Your task to perform on an android device: Open the web browser Image 0: 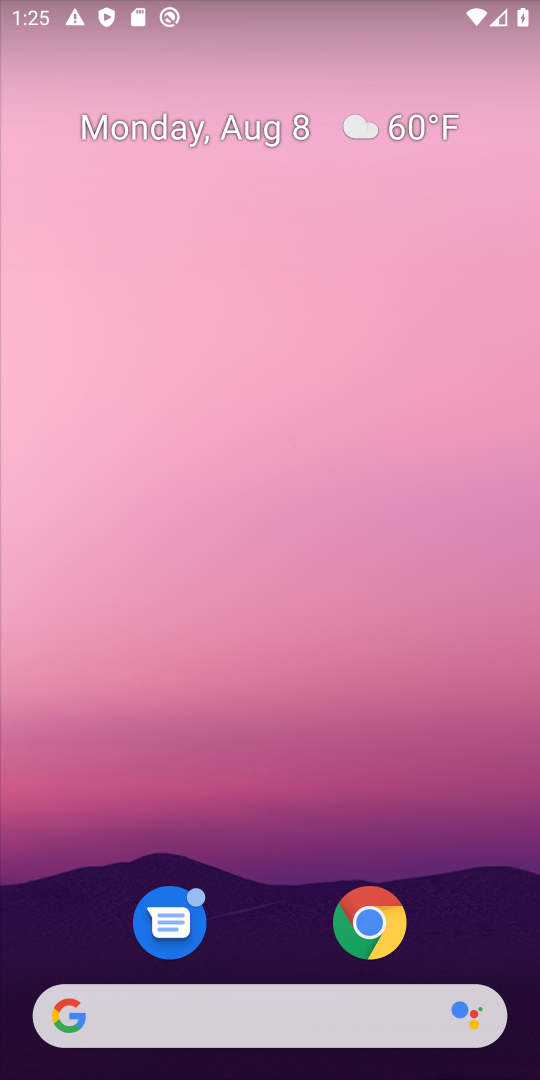
Step 0: drag from (275, 853) to (386, 116)
Your task to perform on an android device: Open the web browser Image 1: 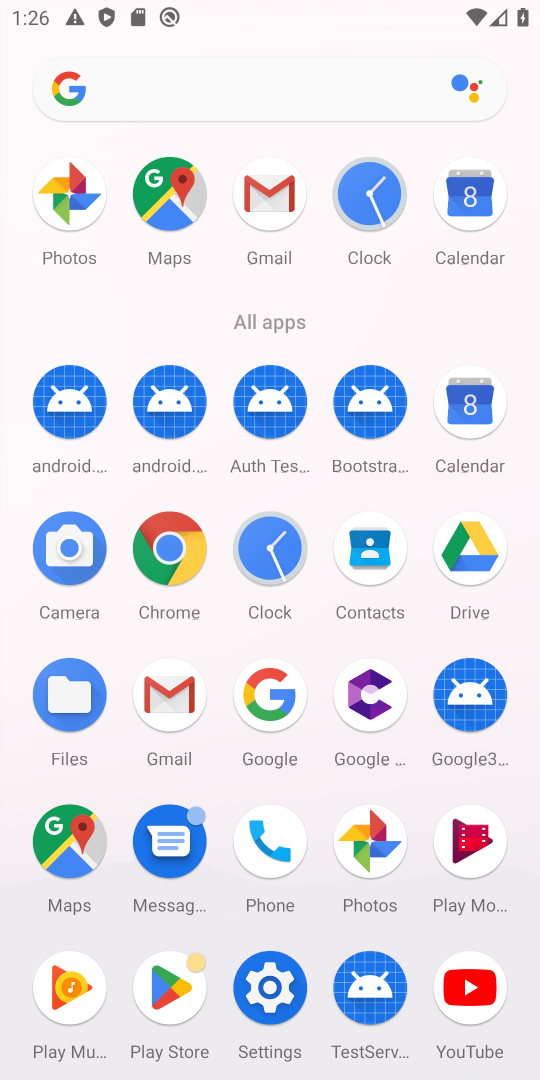
Step 1: click (169, 551)
Your task to perform on an android device: Open the web browser Image 2: 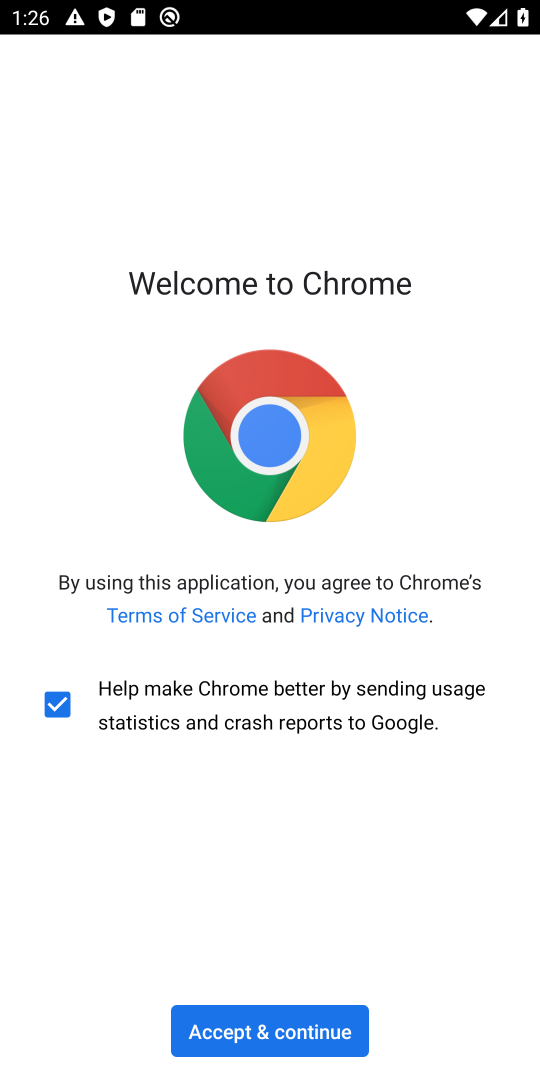
Step 2: click (199, 1025)
Your task to perform on an android device: Open the web browser Image 3: 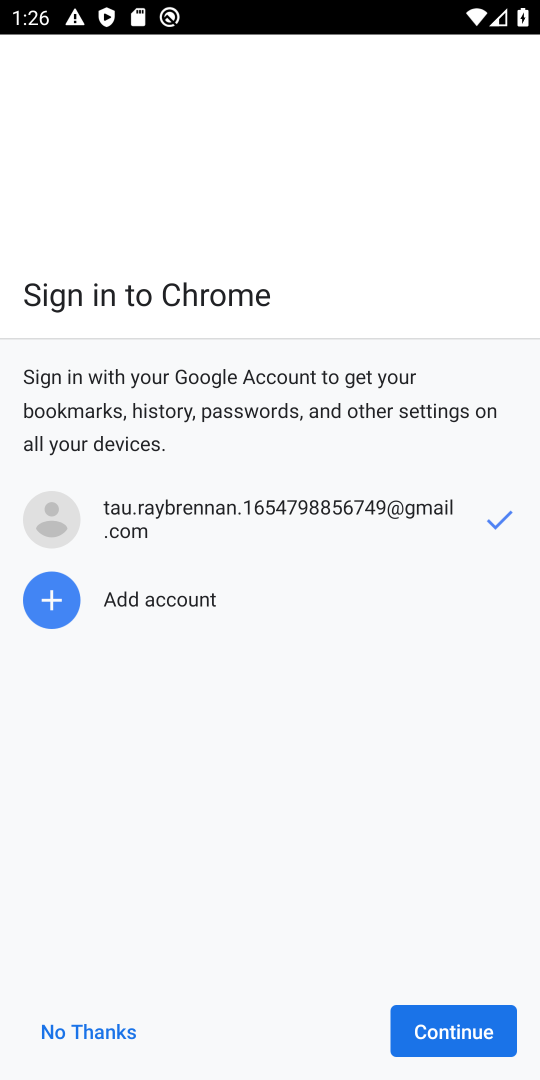
Step 3: click (453, 1042)
Your task to perform on an android device: Open the web browser Image 4: 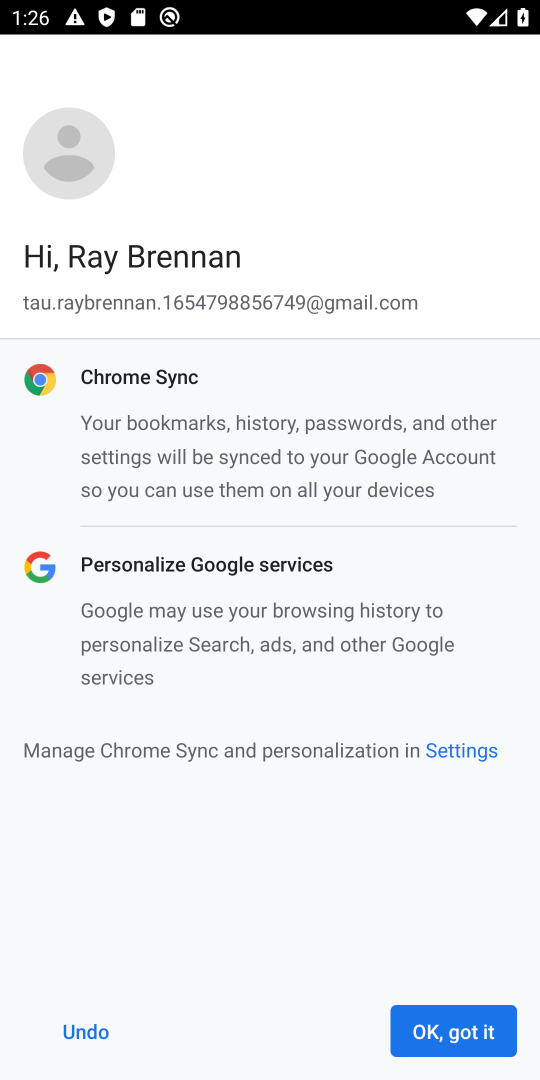
Step 4: click (455, 1040)
Your task to perform on an android device: Open the web browser Image 5: 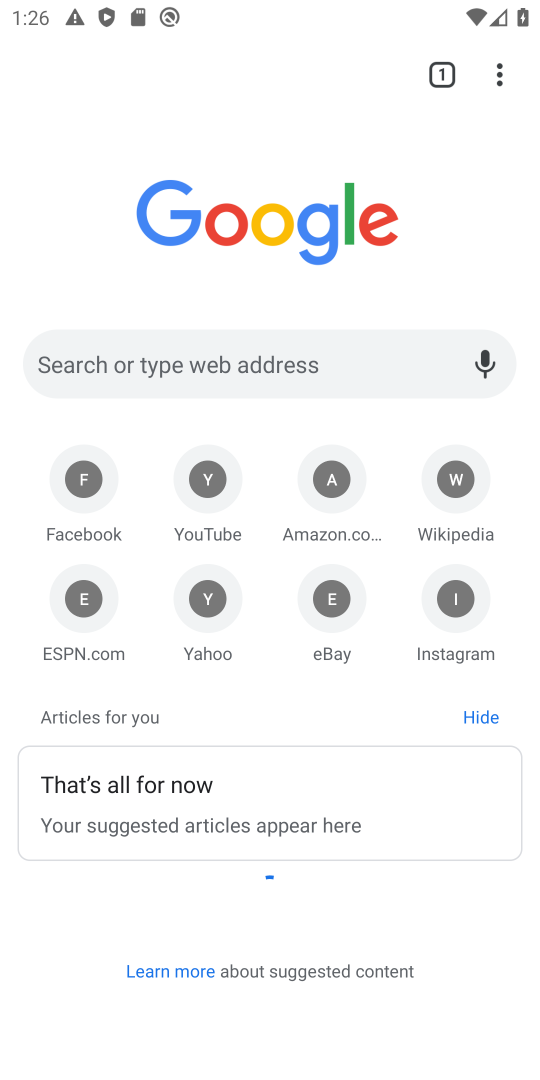
Step 5: task complete